Your task to perform on an android device: Open location settings Image 0: 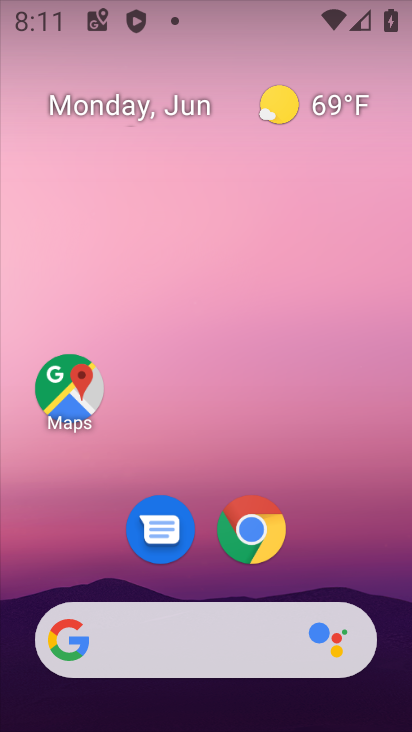
Step 0: drag from (317, 541) to (358, 273)
Your task to perform on an android device: Open location settings Image 1: 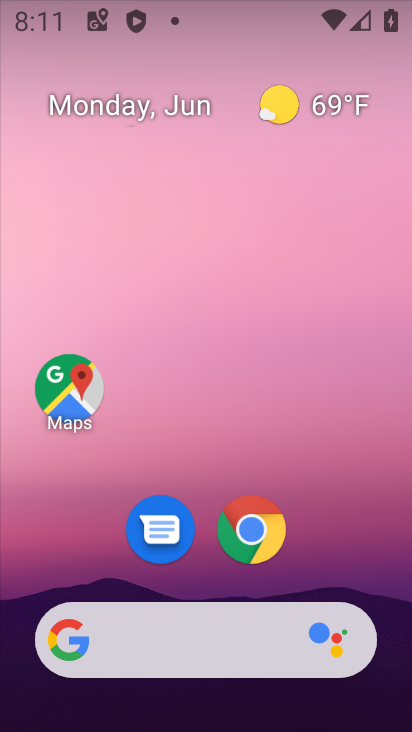
Step 1: drag from (350, 534) to (375, 3)
Your task to perform on an android device: Open location settings Image 2: 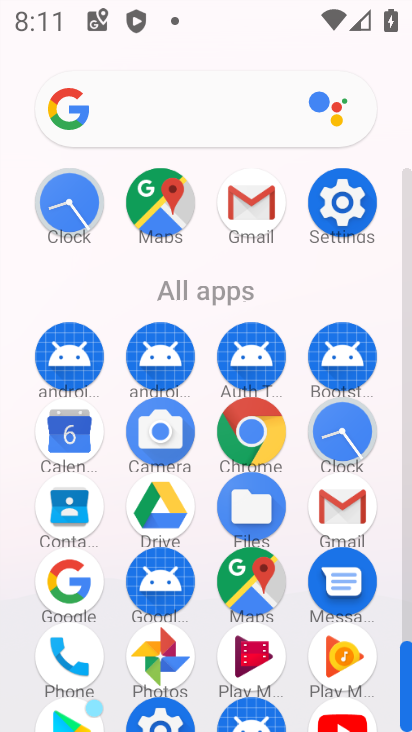
Step 2: click (335, 205)
Your task to perform on an android device: Open location settings Image 3: 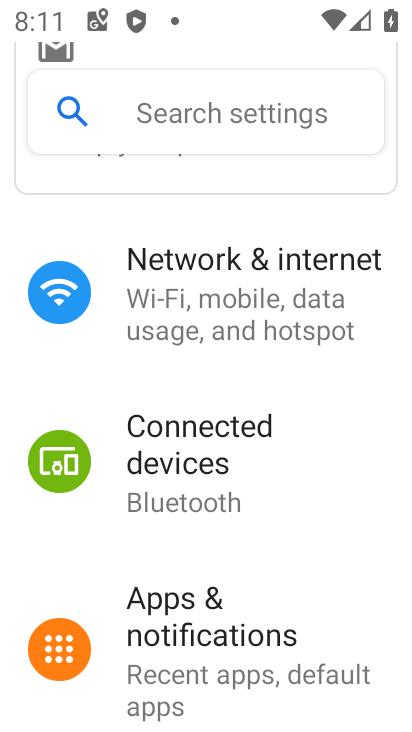
Step 3: drag from (269, 641) to (335, 259)
Your task to perform on an android device: Open location settings Image 4: 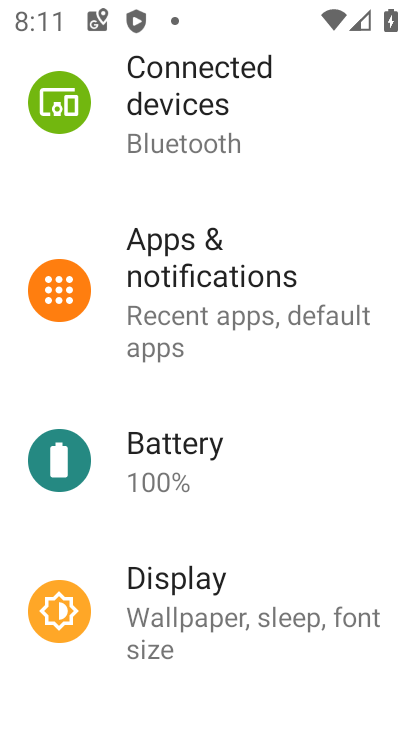
Step 4: drag from (283, 592) to (340, 178)
Your task to perform on an android device: Open location settings Image 5: 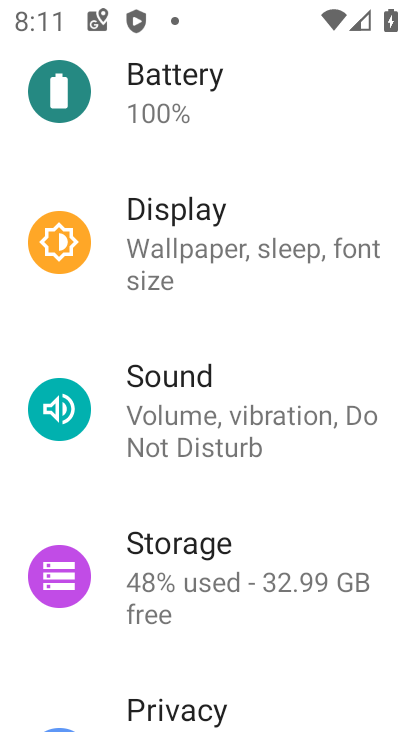
Step 5: drag from (213, 615) to (267, 100)
Your task to perform on an android device: Open location settings Image 6: 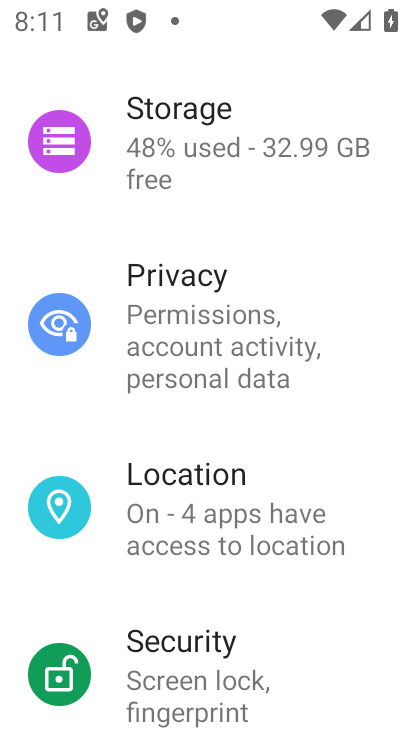
Step 6: click (199, 512)
Your task to perform on an android device: Open location settings Image 7: 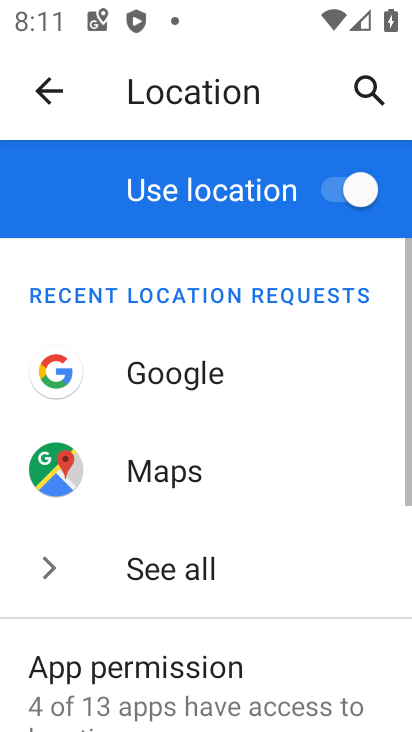
Step 7: task complete